Your task to perform on an android device: Open wifi settings Image 0: 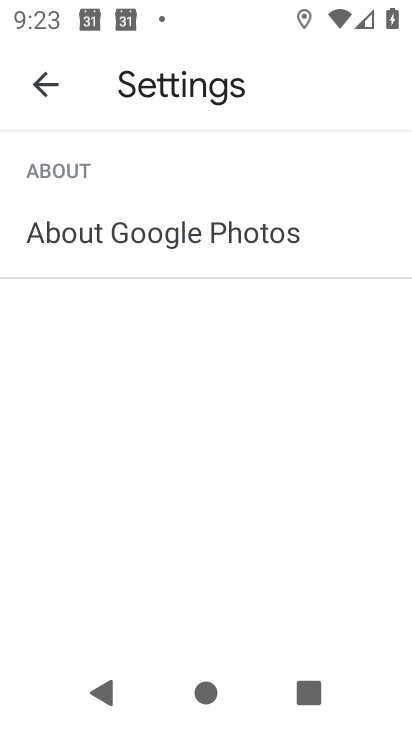
Step 0: press home button
Your task to perform on an android device: Open wifi settings Image 1: 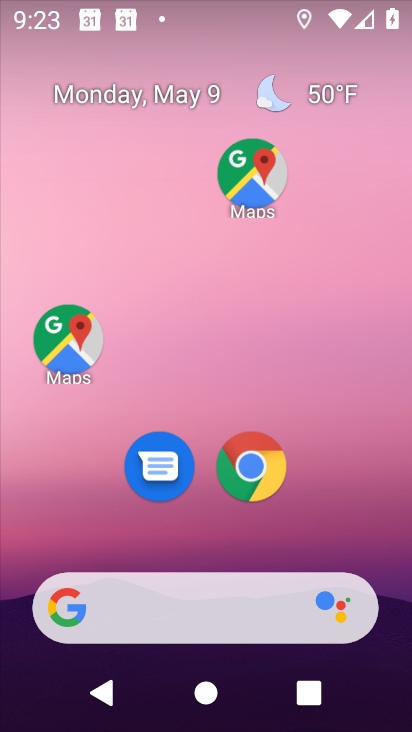
Step 1: drag from (336, 555) to (322, 0)
Your task to perform on an android device: Open wifi settings Image 2: 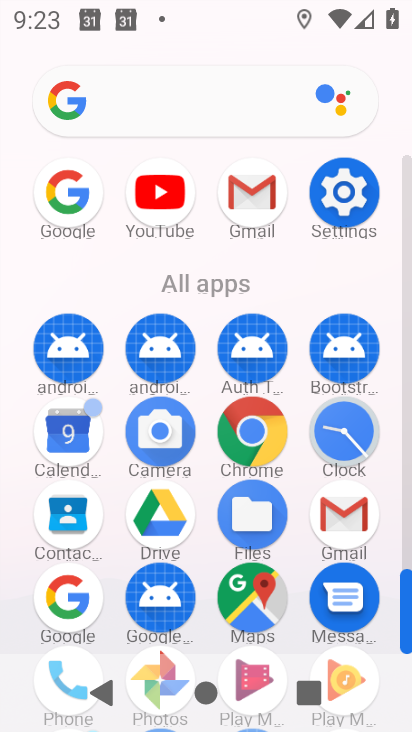
Step 2: click (344, 196)
Your task to perform on an android device: Open wifi settings Image 3: 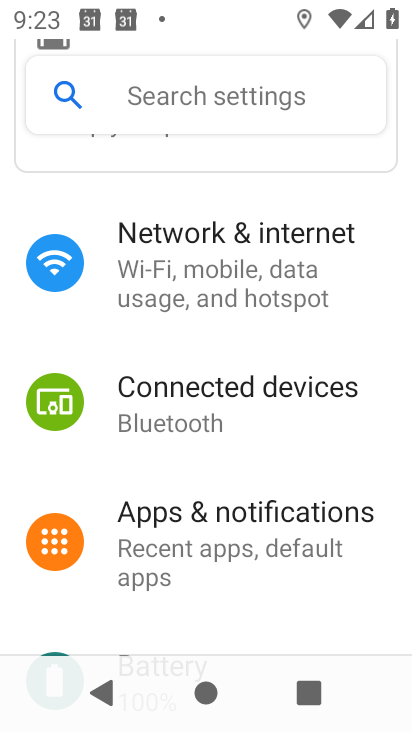
Step 3: click (215, 254)
Your task to perform on an android device: Open wifi settings Image 4: 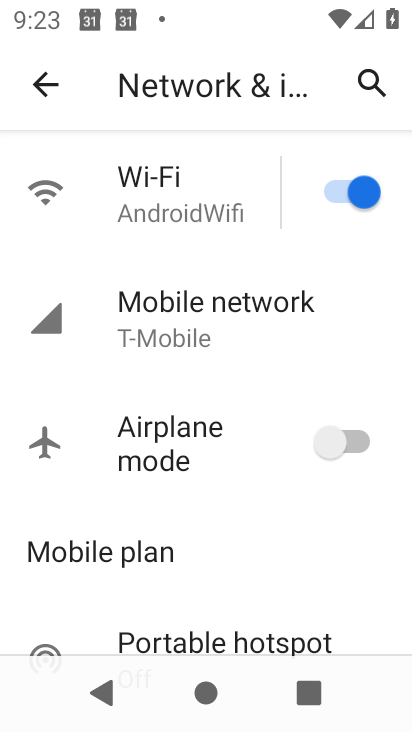
Step 4: click (86, 202)
Your task to perform on an android device: Open wifi settings Image 5: 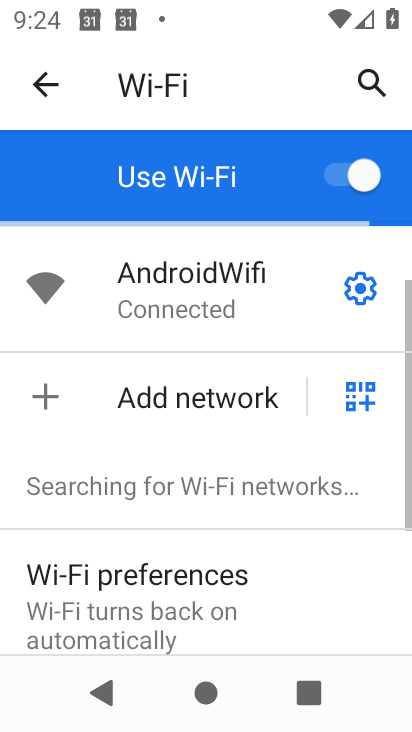
Step 5: task complete